Your task to perform on an android device: open app "VLC for Android" (install if not already installed) Image 0: 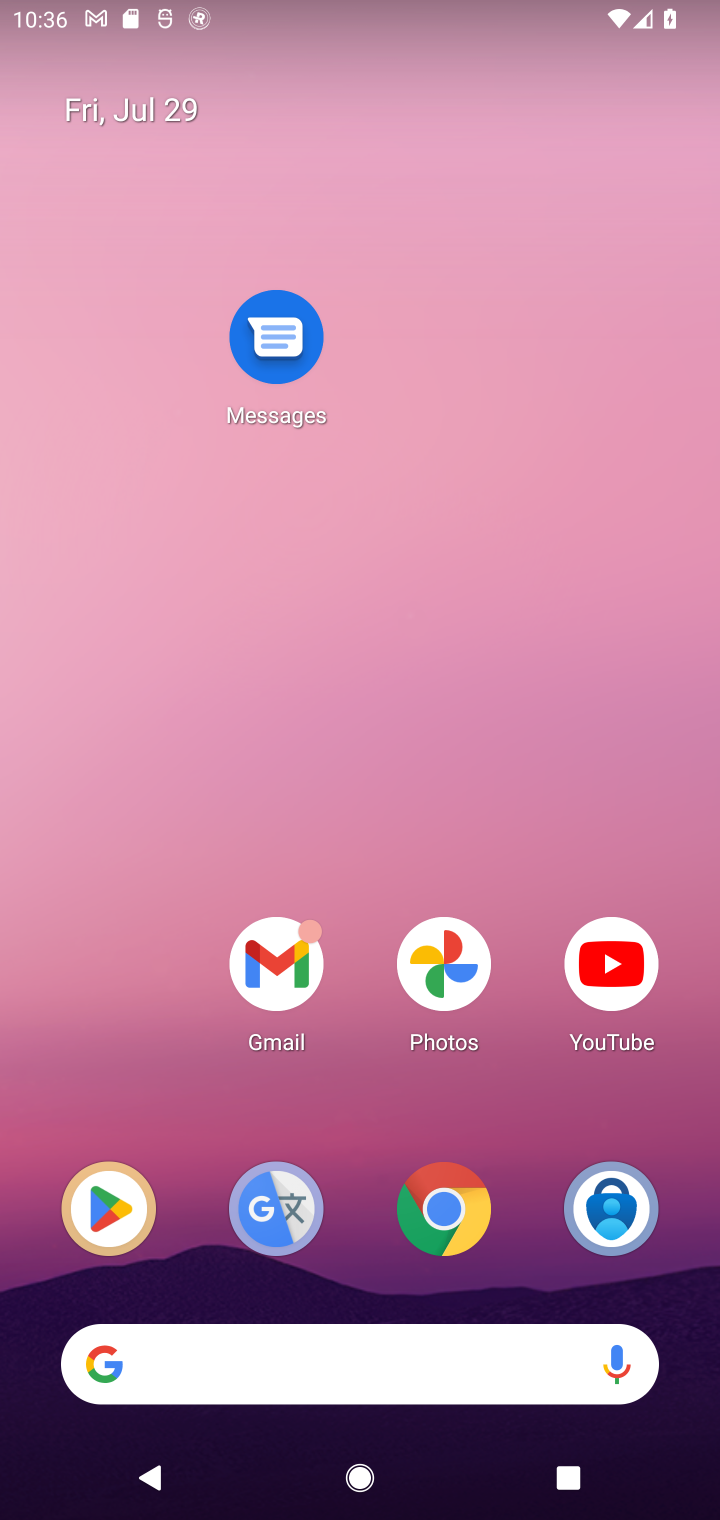
Step 0: drag from (190, 1384) to (243, 183)
Your task to perform on an android device: open app "VLC for Android" (install if not already installed) Image 1: 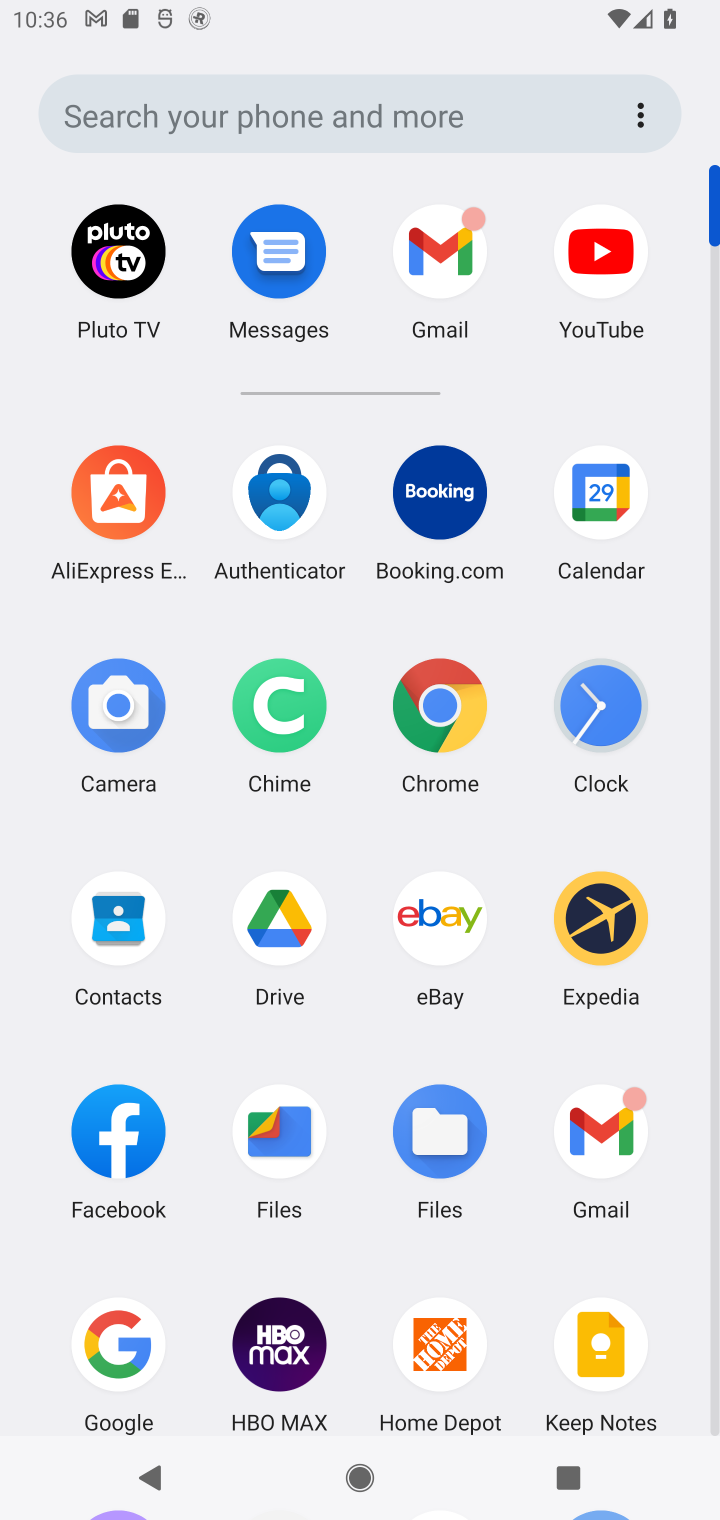
Step 1: drag from (356, 1222) to (319, 411)
Your task to perform on an android device: open app "VLC for Android" (install if not already installed) Image 2: 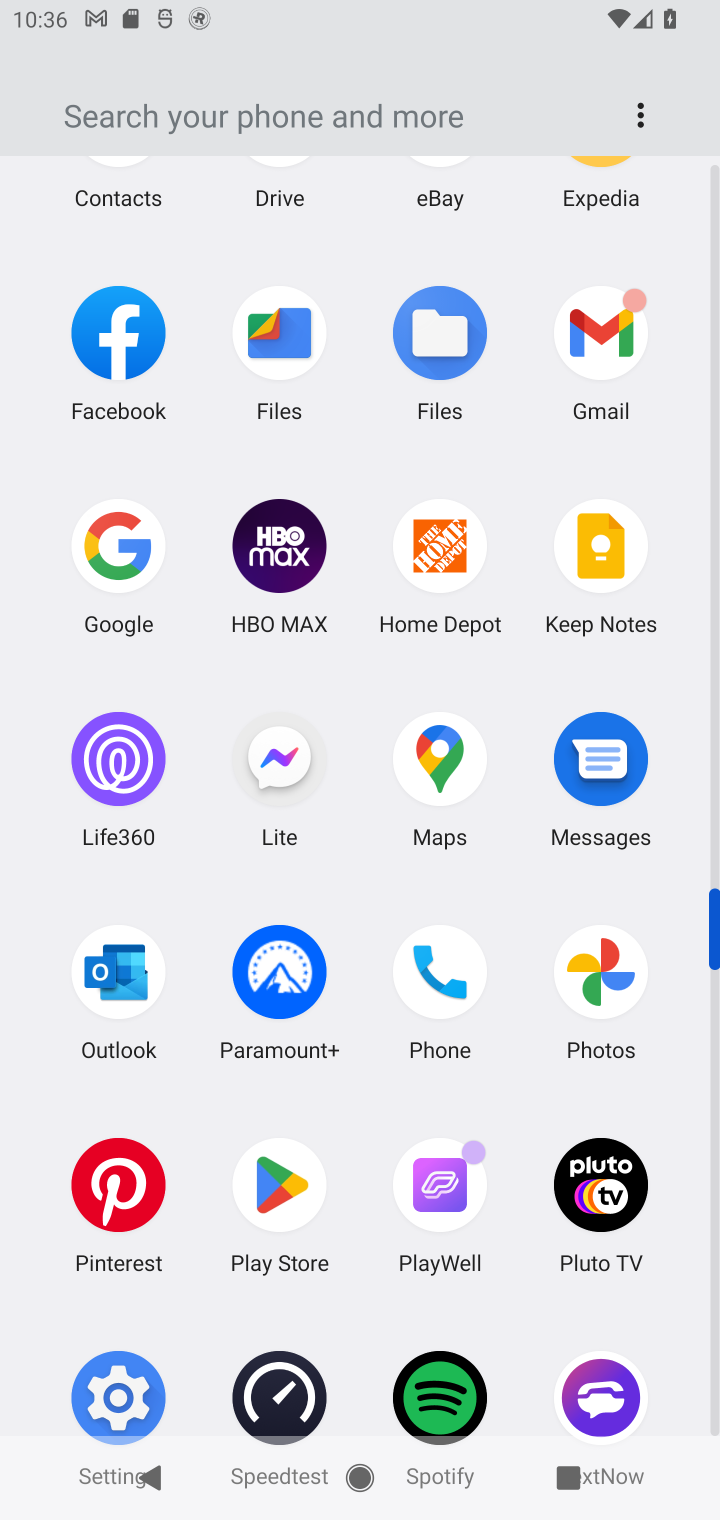
Step 2: click (285, 1184)
Your task to perform on an android device: open app "VLC for Android" (install if not already installed) Image 3: 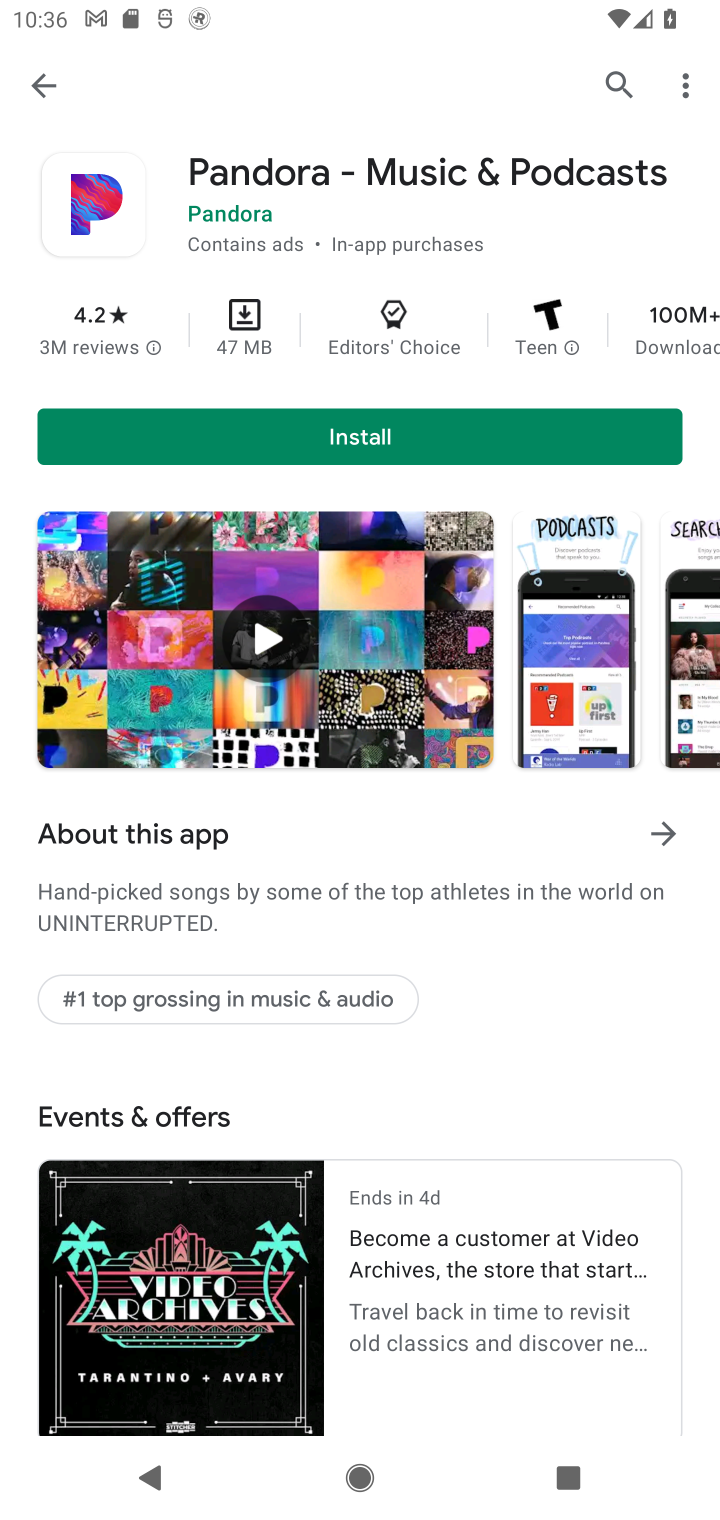
Step 3: click (622, 76)
Your task to perform on an android device: open app "VLC for Android" (install if not already installed) Image 4: 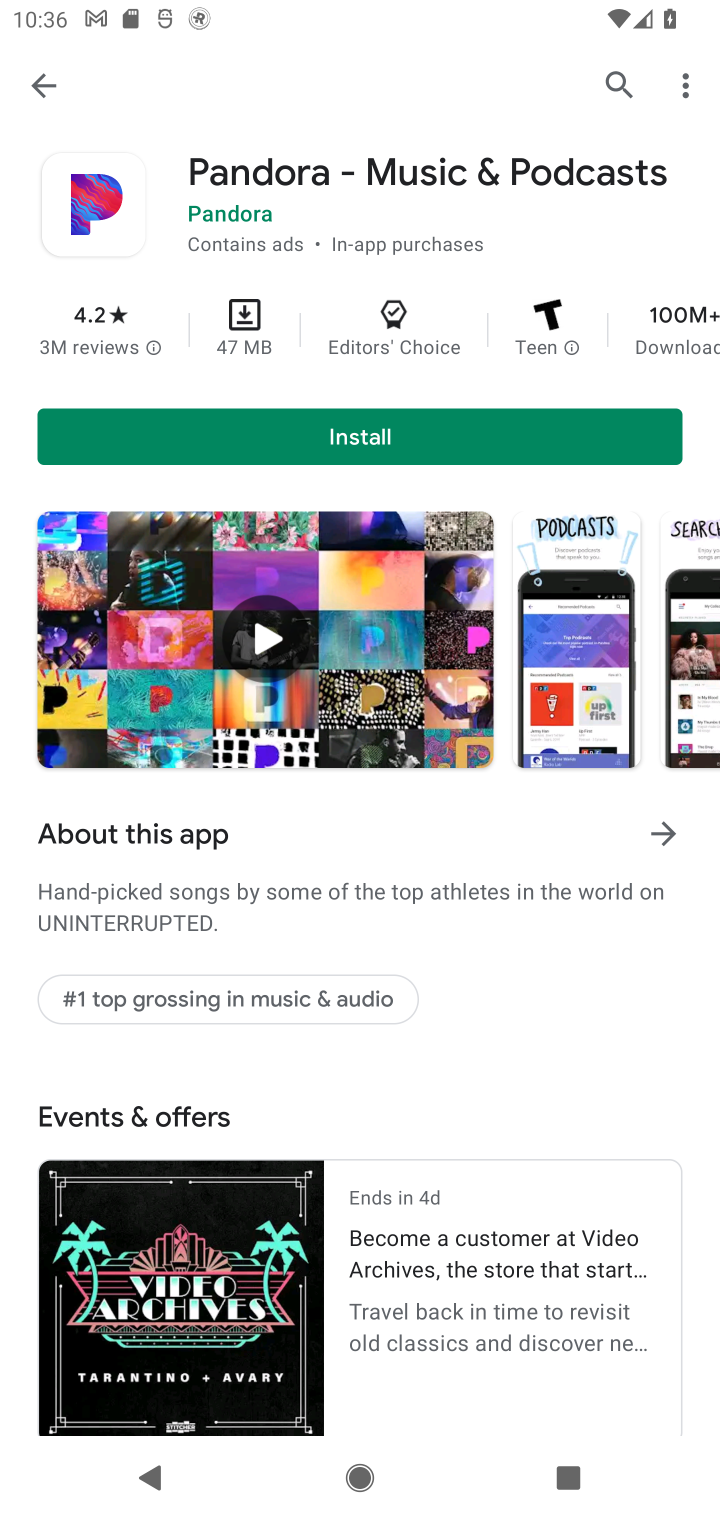
Step 4: click (611, 77)
Your task to perform on an android device: open app "VLC for Android" (install if not already installed) Image 5: 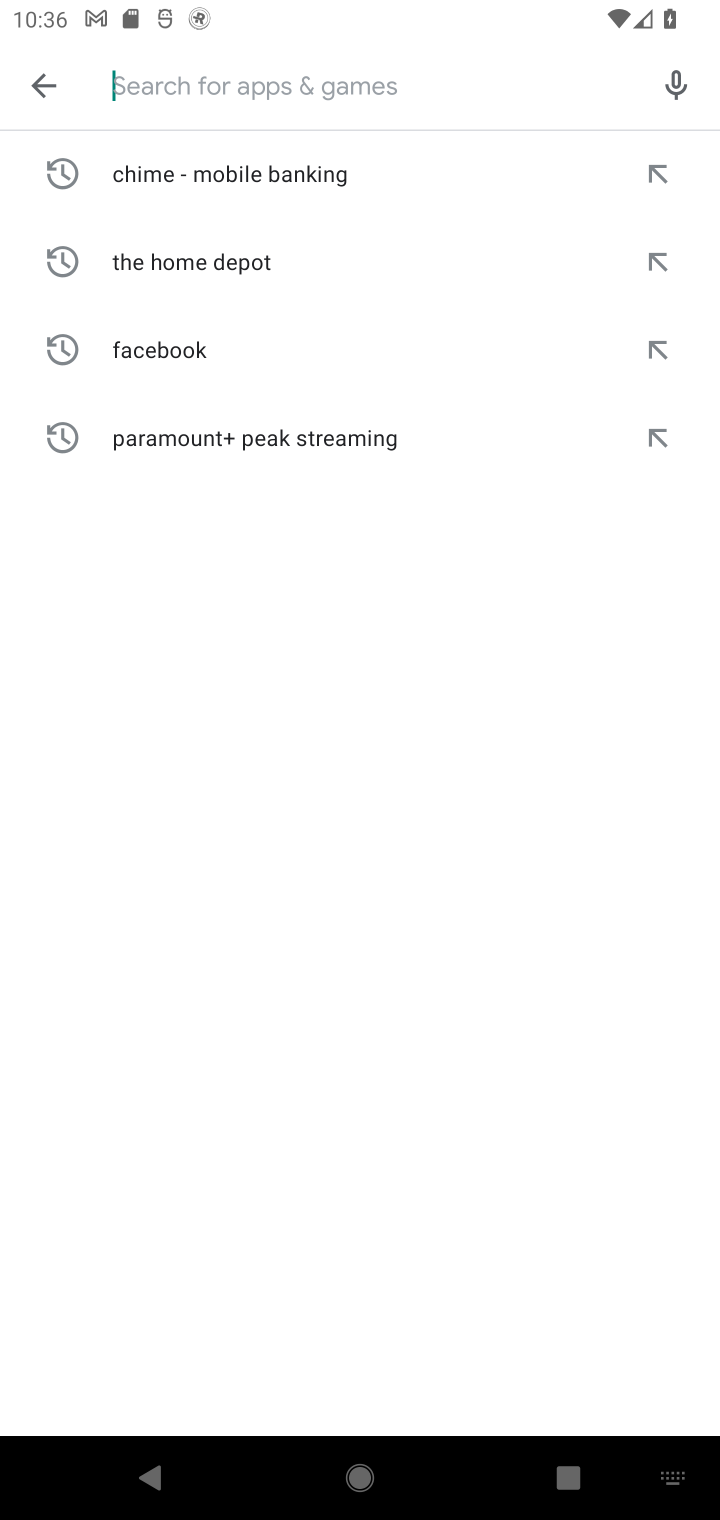
Step 5: click (328, 93)
Your task to perform on an android device: open app "VLC for Android" (install if not already installed) Image 6: 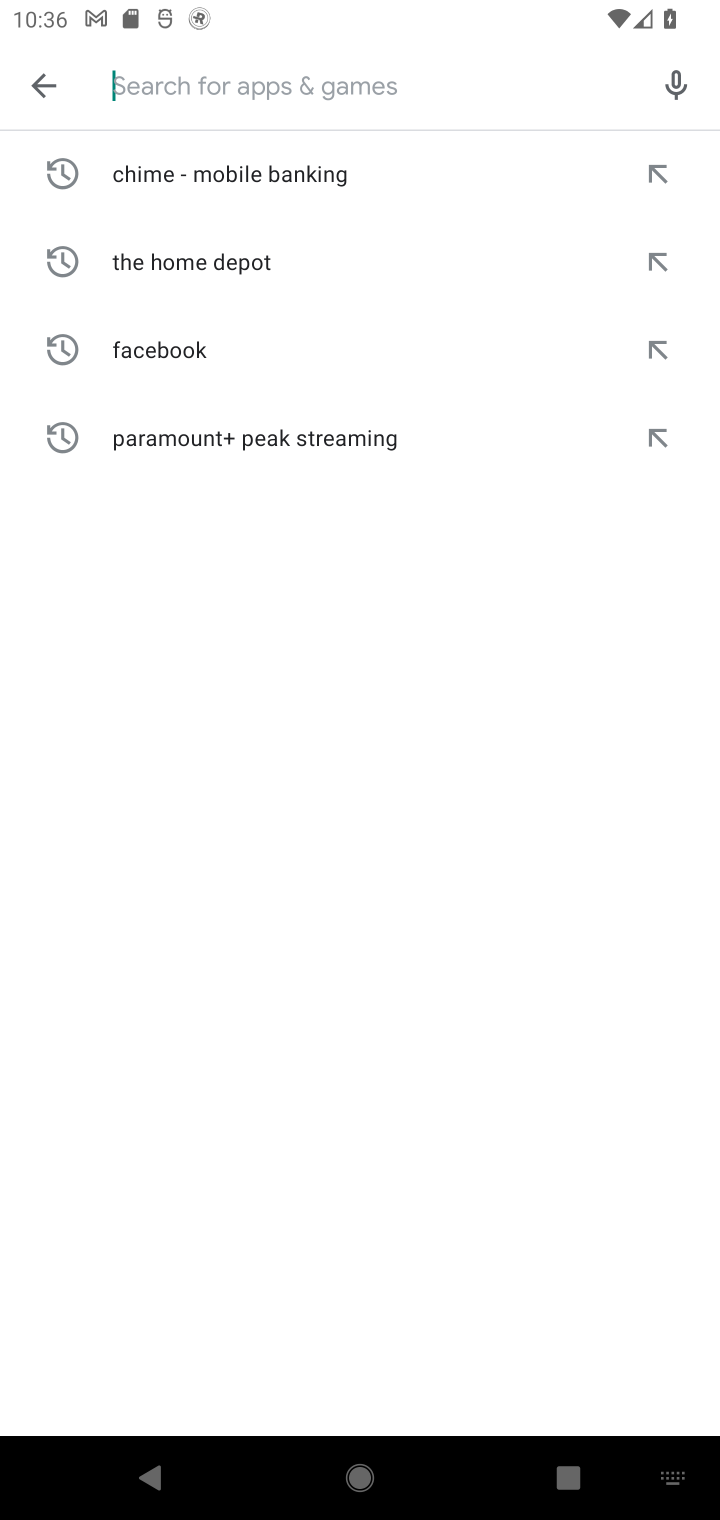
Step 6: type "VLC for Android"
Your task to perform on an android device: open app "VLC for Android" (install if not already installed) Image 7: 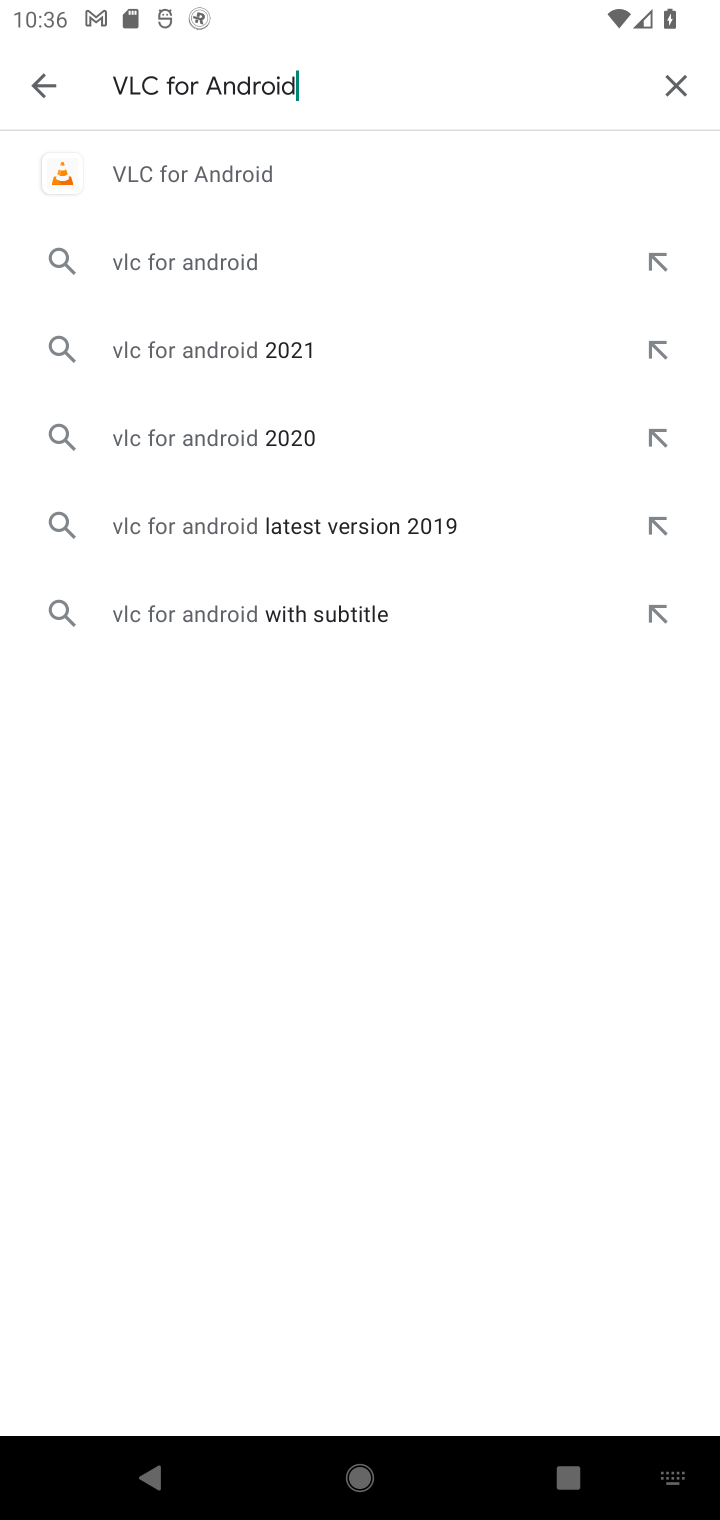
Step 7: click (277, 173)
Your task to perform on an android device: open app "VLC for Android" (install if not already installed) Image 8: 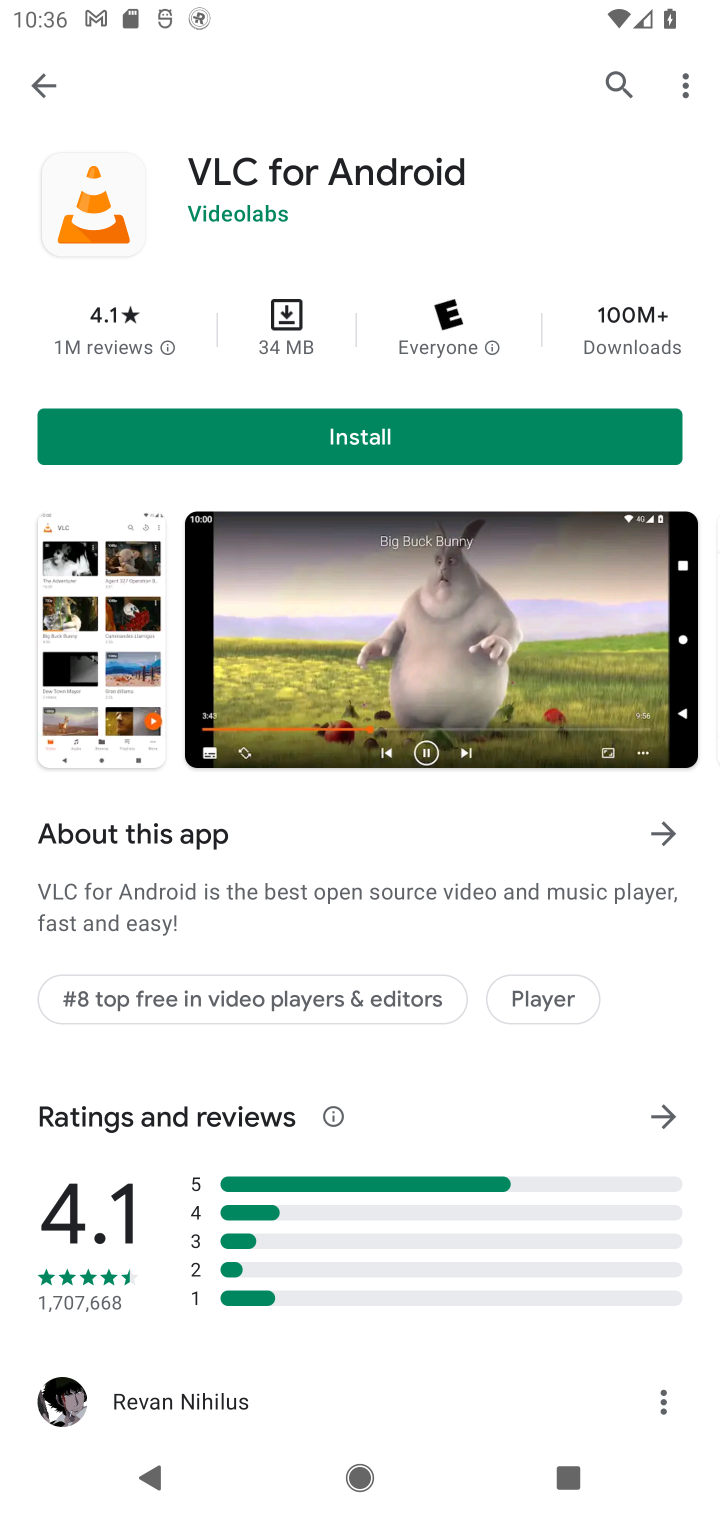
Step 8: click (305, 412)
Your task to perform on an android device: open app "VLC for Android" (install if not already installed) Image 9: 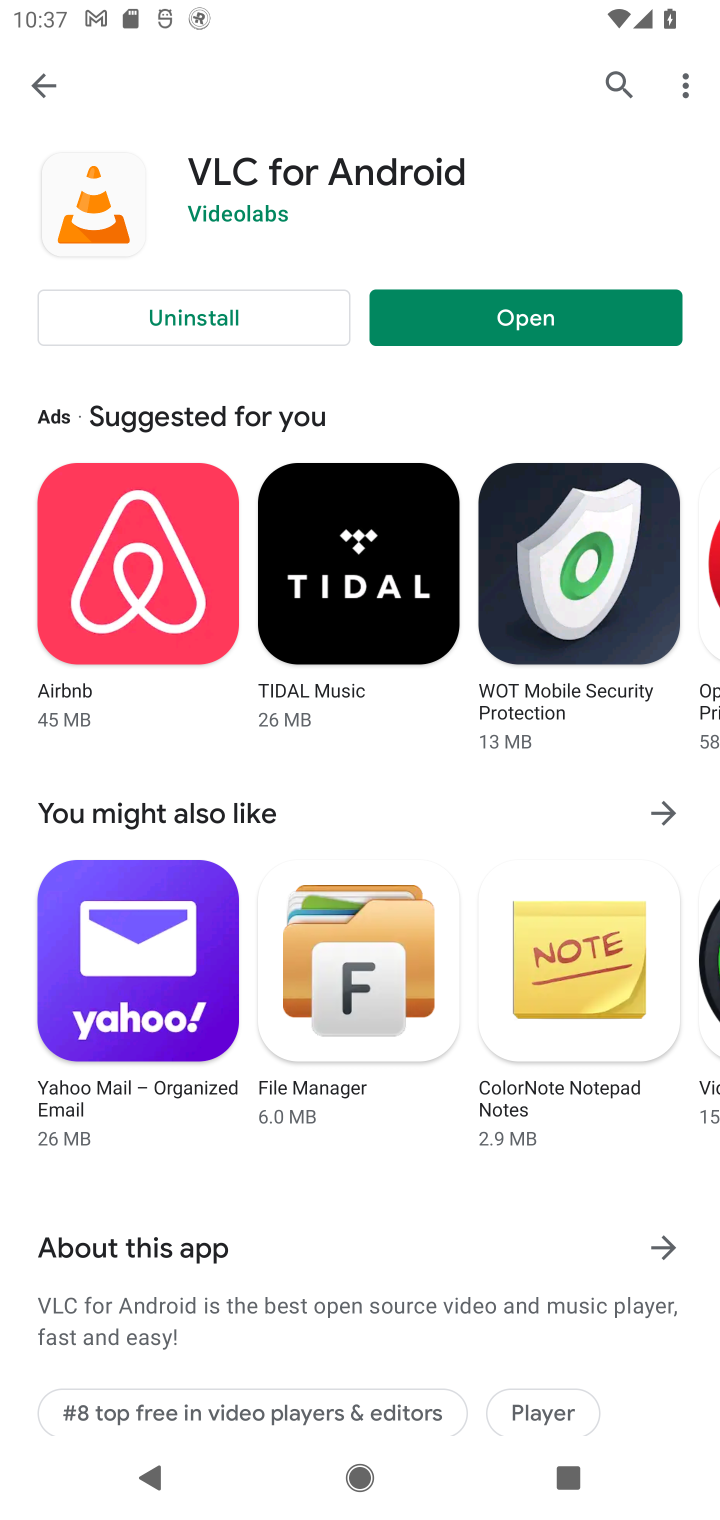
Step 9: click (471, 309)
Your task to perform on an android device: open app "VLC for Android" (install if not already installed) Image 10: 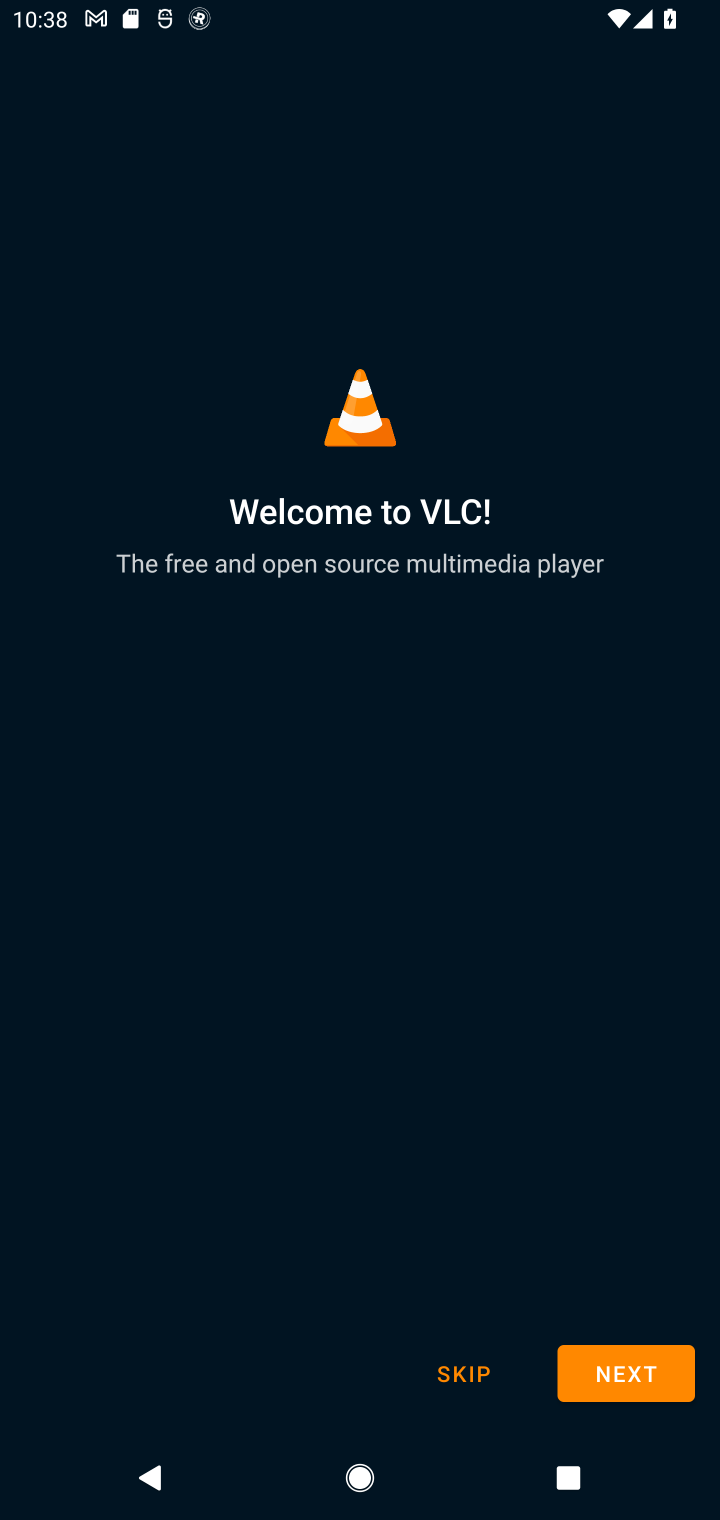
Step 10: task complete